Your task to perform on an android device: What is the recent news? Image 0: 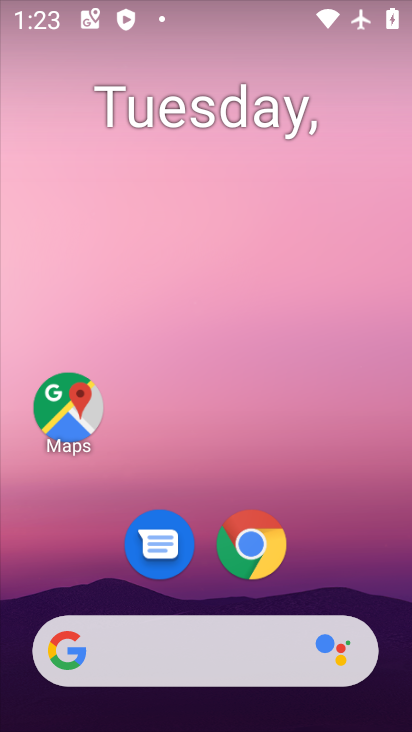
Step 0: drag from (13, 249) to (383, 300)
Your task to perform on an android device: What is the recent news? Image 1: 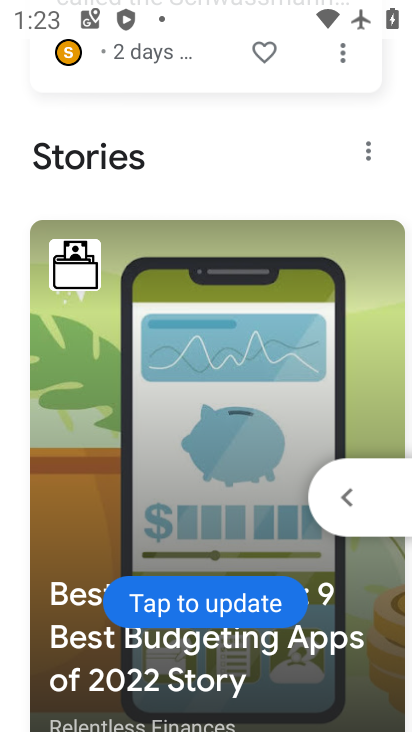
Step 1: drag from (278, 156) to (271, 439)
Your task to perform on an android device: What is the recent news? Image 2: 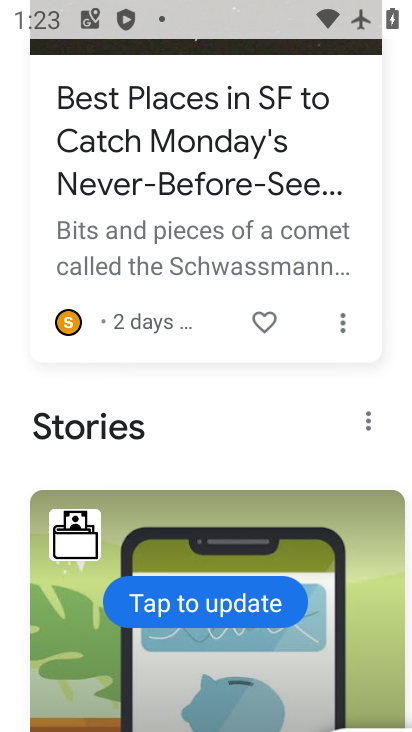
Step 2: drag from (291, 113) to (290, 470)
Your task to perform on an android device: What is the recent news? Image 3: 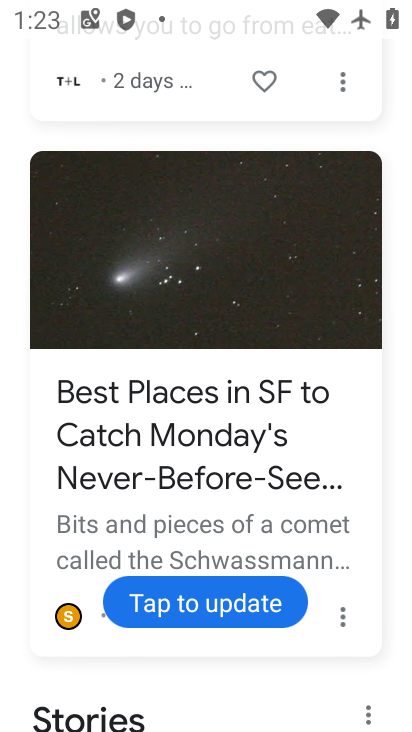
Step 3: drag from (276, 206) to (264, 505)
Your task to perform on an android device: What is the recent news? Image 4: 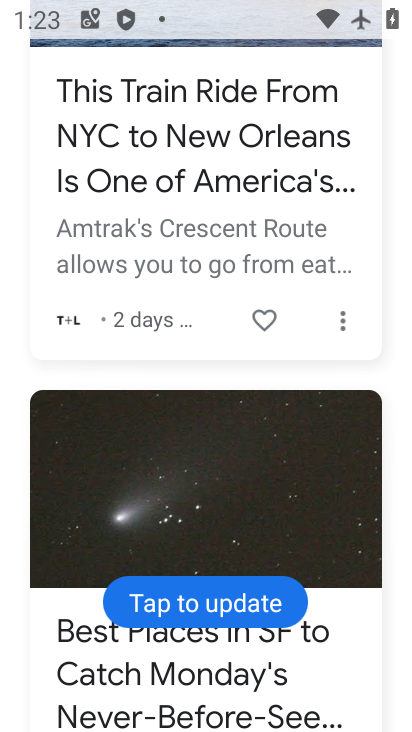
Step 4: drag from (286, 286) to (279, 612)
Your task to perform on an android device: What is the recent news? Image 5: 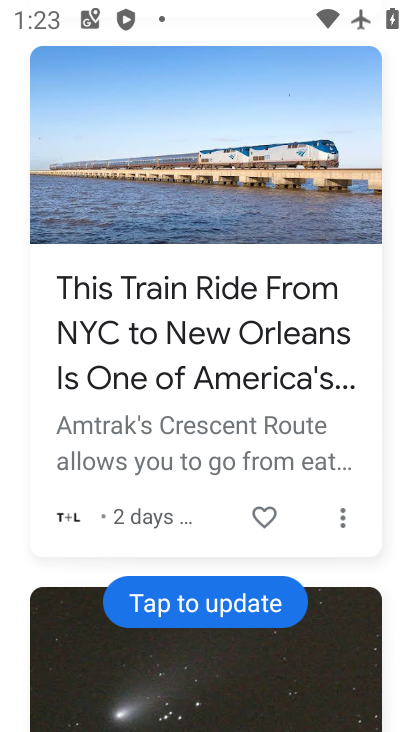
Step 5: drag from (278, 247) to (281, 623)
Your task to perform on an android device: What is the recent news? Image 6: 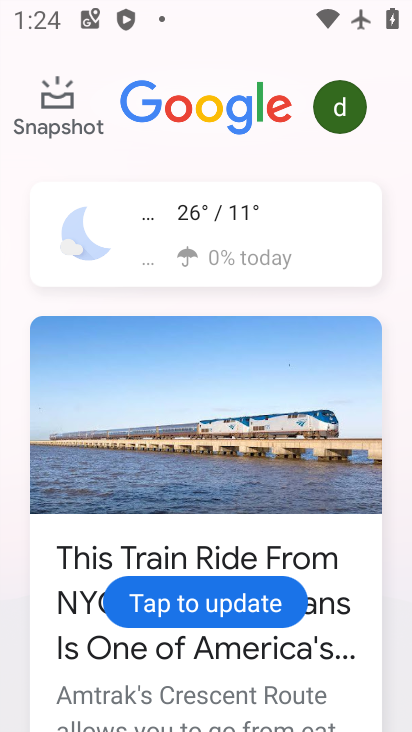
Step 6: click (196, 593)
Your task to perform on an android device: What is the recent news? Image 7: 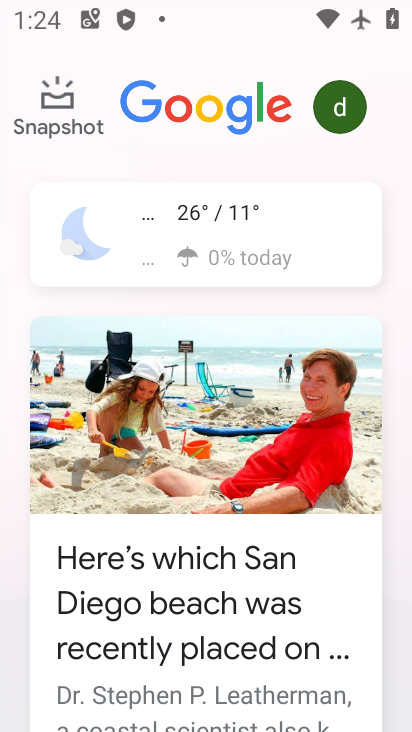
Step 7: task complete